Your task to perform on an android device: Show me popular games on the Play Store Image 0: 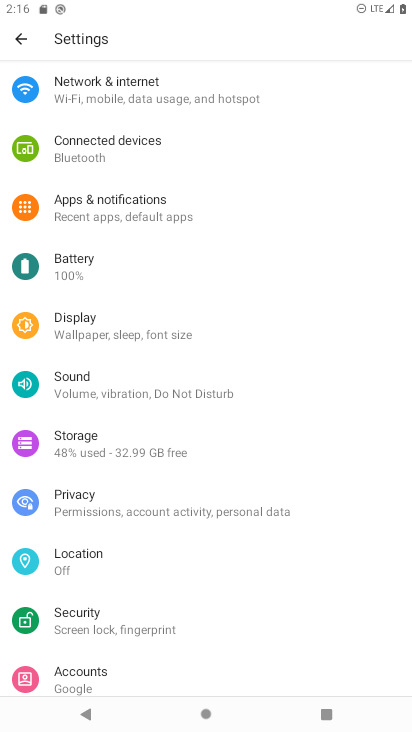
Step 0: press home button
Your task to perform on an android device: Show me popular games on the Play Store Image 1: 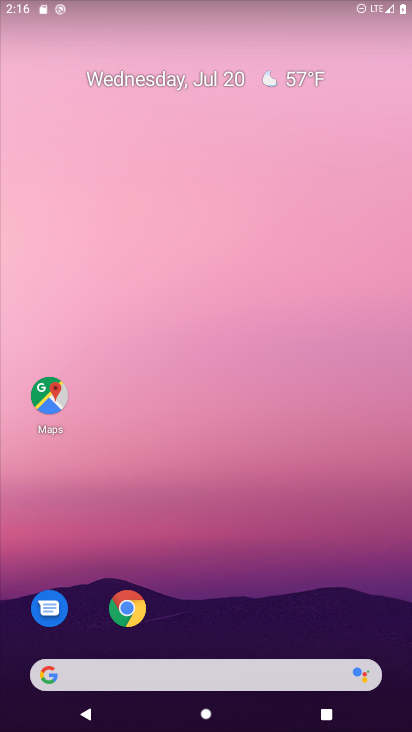
Step 1: drag from (241, 727) to (240, 128)
Your task to perform on an android device: Show me popular games on the Play Store Image 2: 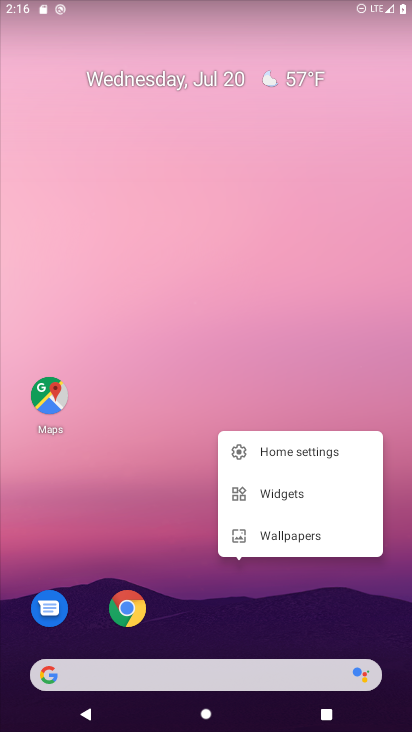
Step 2: click (193, 401)
Your task to perform on an android device: Show me popular games on the Play Store Image 3: 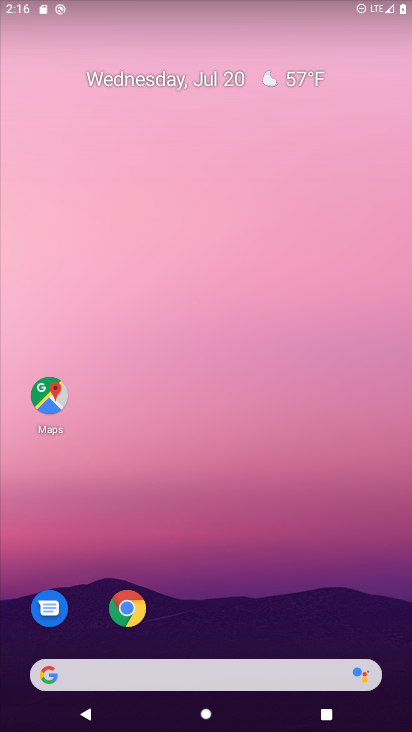
Step 3: drag from (243, 724) to (261, 437)
Your task to perform on an android device: Show me popular games on the Play Store Image 4: 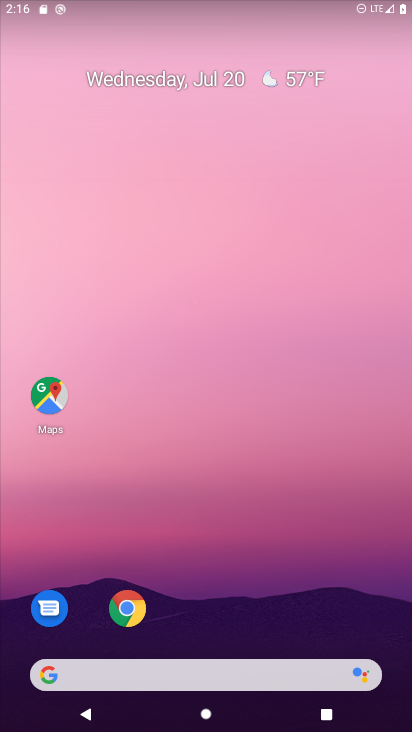
Step 4: drag from (219, 722) to (245, 171)
Your task to perform on an android device: Show me popular games on the Play Store Image 5: 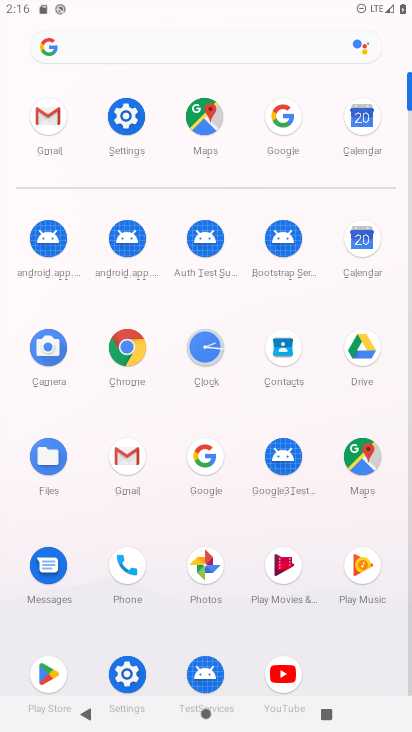
Step 5: click (49, 671)
Your task to perform on an android device: Show me popular games on the Play Store Image 6: 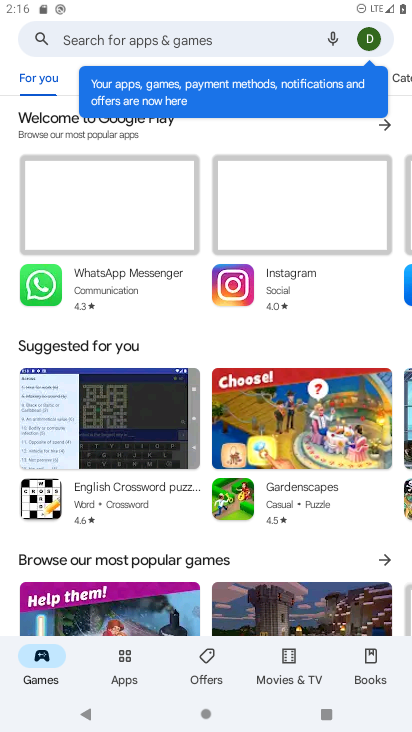
Step 6: click (386, 560)
Your task to perform on an android device: Show me popular games on the Play Store Image 7: 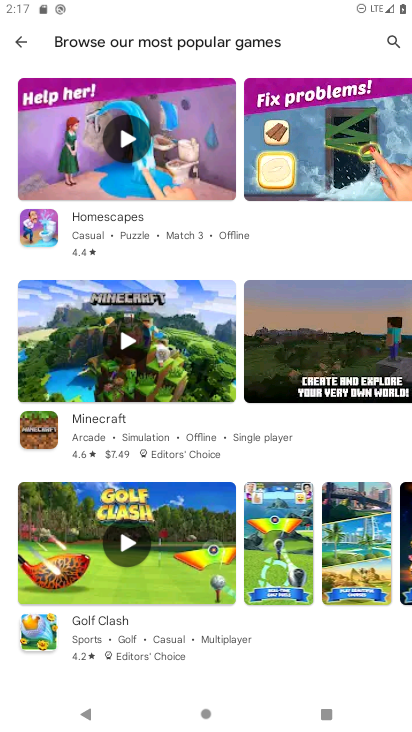
Step 7: task complete